Your task to perform on an android device: Go to Android settings Image 0: 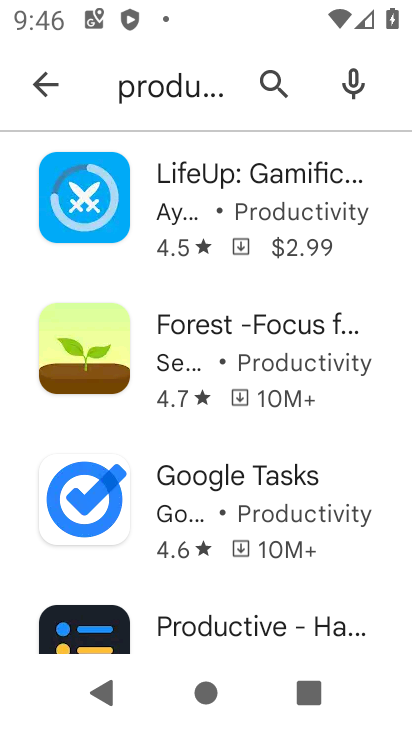
Step 0: press home button
Your task to perform on an android device: Go to Android settings Image 1: 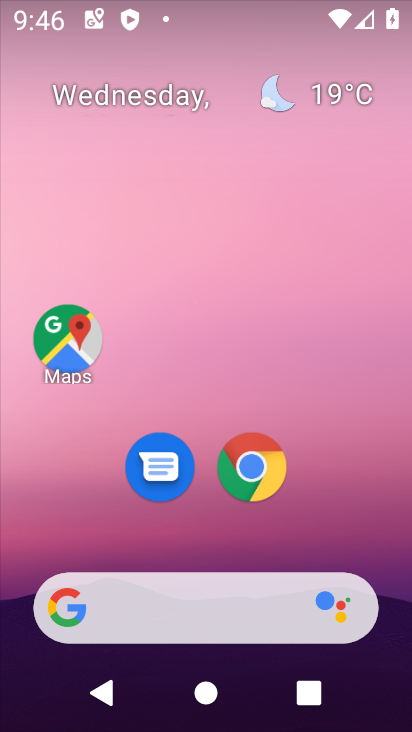
Step 1: drag from (349, 503) to (257, 35)
Your task to perform on an android device: Go to Android settings Image 2: 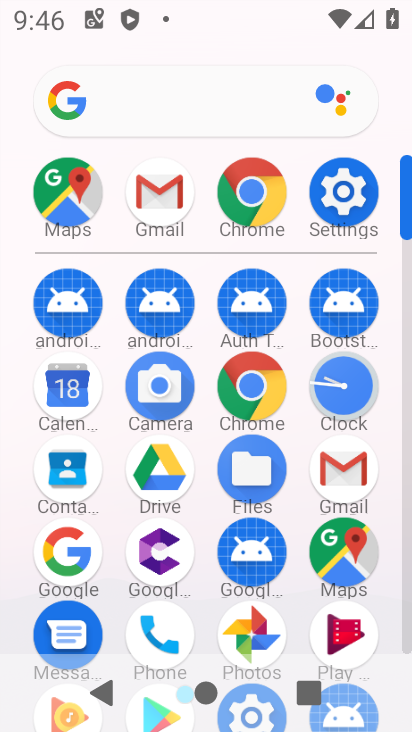
Step 2: click (334, 208)
Your task to perform on an android device: Go to Android settings Image 3: 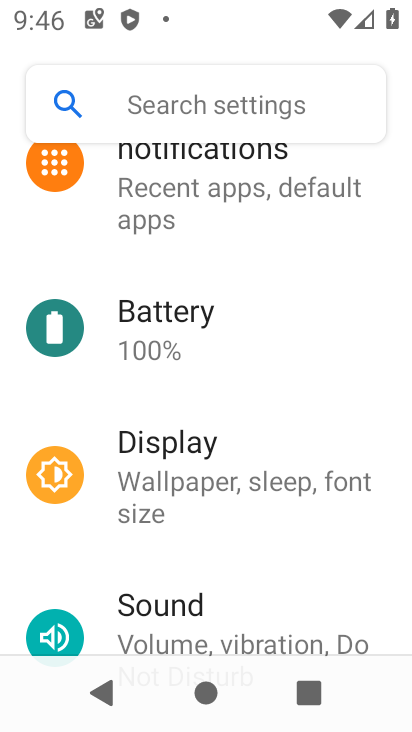
Step 3: drag from (270, 592) to (274, 171)
Your task to perform on an android device: Go to Android settings Image 4: 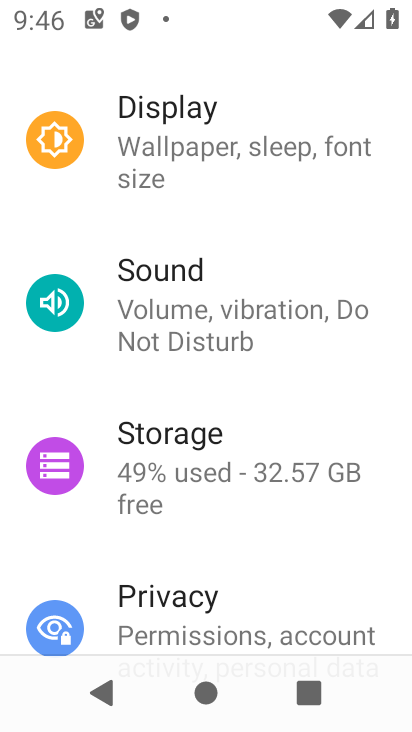
Step 4: drag from (232, 605) to (244, 207)
Your task to perform on an android device: Go to Android settings Image 5: 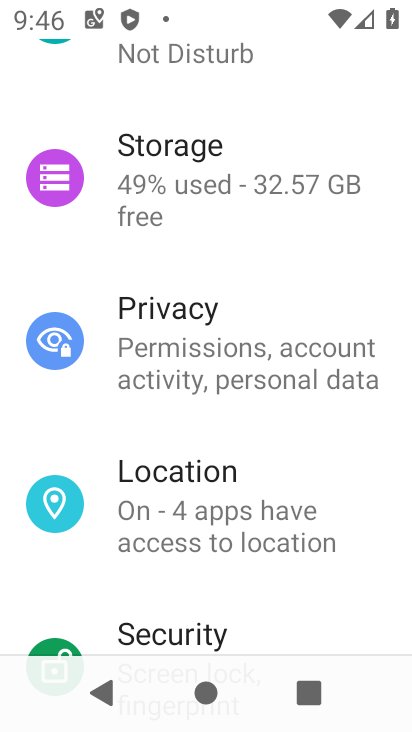
Step 5: drag from (233, 544) to (245, 151)
Your task to perform on an android device: Go to Android settings Image 6: 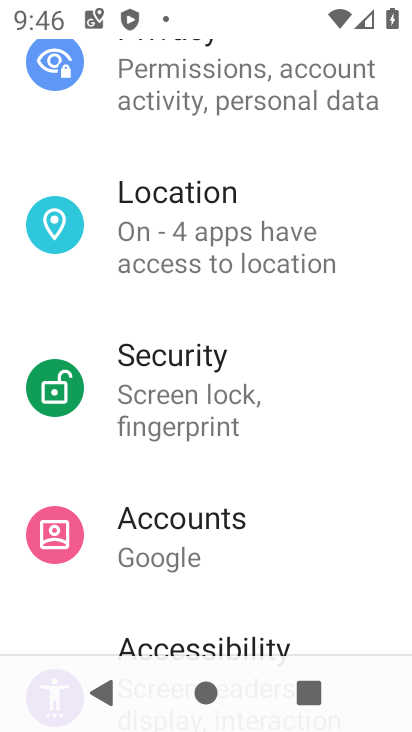
Step 6: drag from (230, 559) to (241, 156)
Your task to perform on an android device: Go to Android settings Image 7: 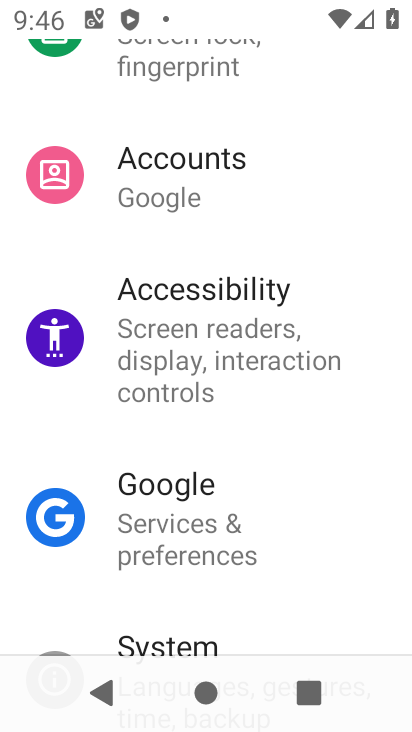
Step 7: drag from (268, 607) to (263, 167)
Your task to perform on an android device: Go to Android settings Image 8: 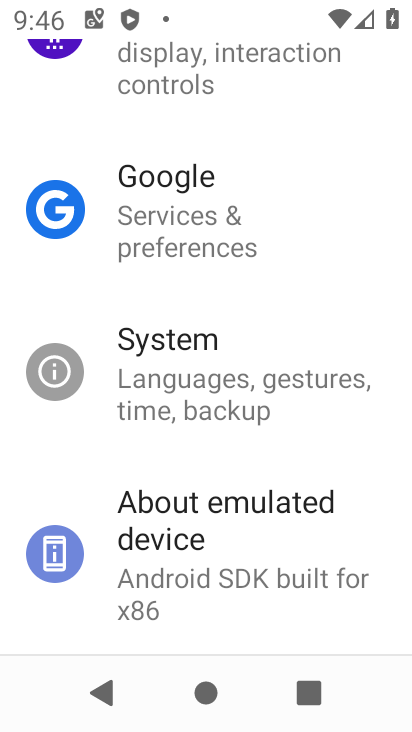
Step 8: drag from (270, 531) to (212, 167)
Your task to perform on an android device: Go to Android settings Image 9: 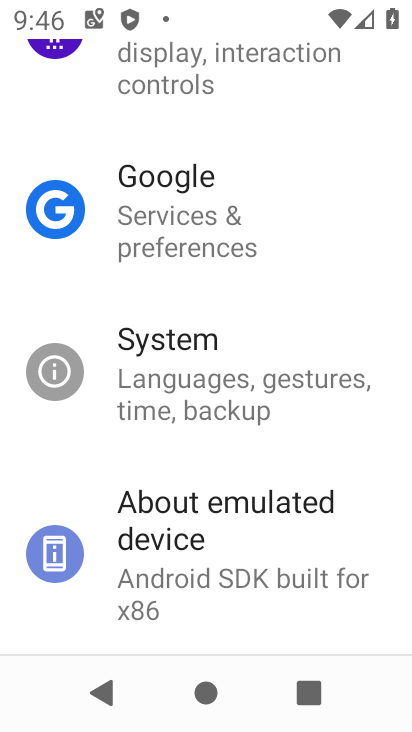
Step 9: click (208, 528)
Your task to perform on an android device: Go to Android settings Image 10: 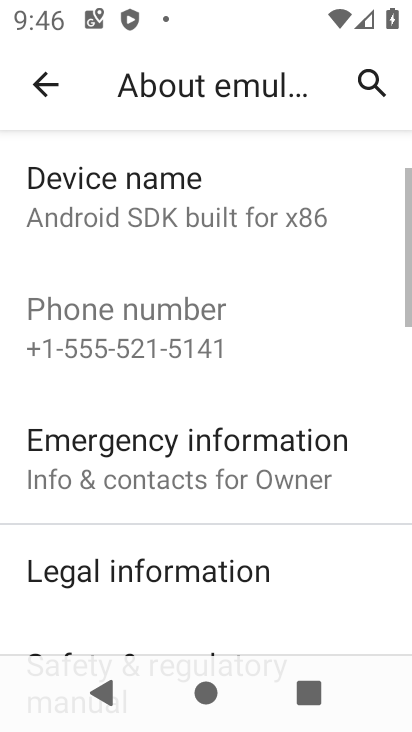
Step 10: drag from (233, 564) to (227, 162)
Your task to perform on an android device: Go to Android settings Image 11: 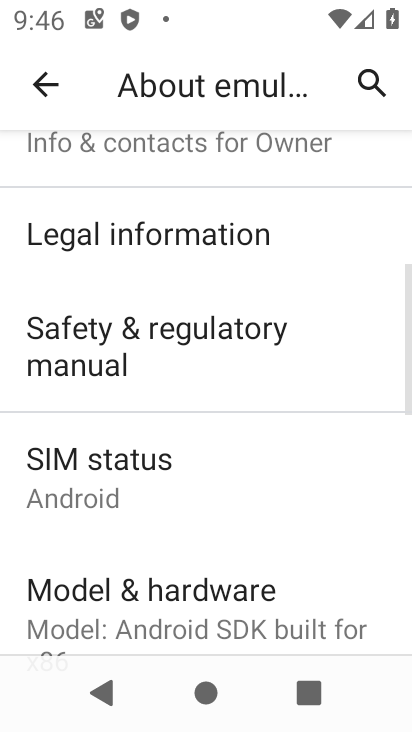
Step 11: drag from (219, 592) to (226, 235)
Your task to perform on an android device: Go to Android settings Image 12: 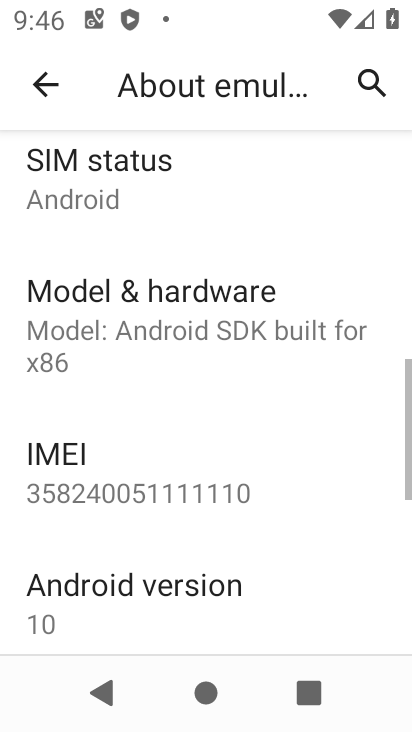
Step 12: click (196, 597)
Your task to perform on an android device: Go to Android settings Image 13: 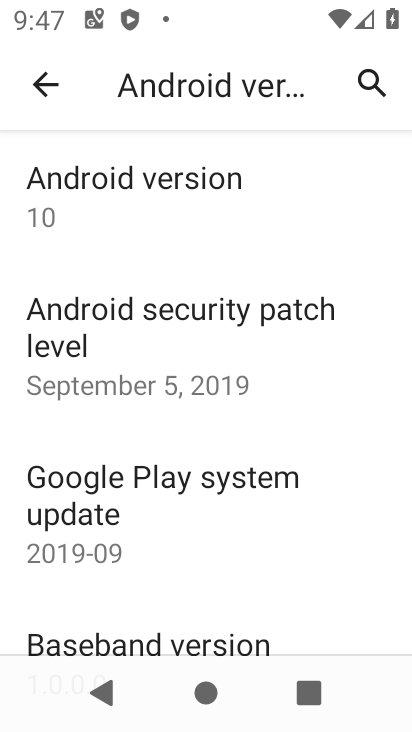
Step 13: task complete